Your task to perform on an android device: Go to display settings Image 0: 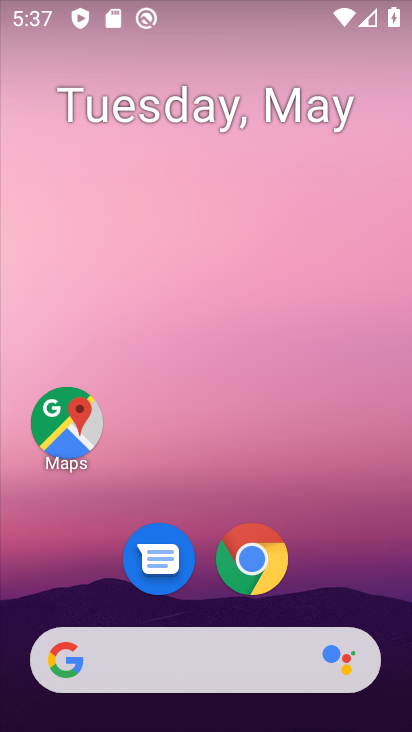
Step 0: drag from (200, 598) to (264, 231)
Your task to perform on an android device: Go to display settings Image 1: 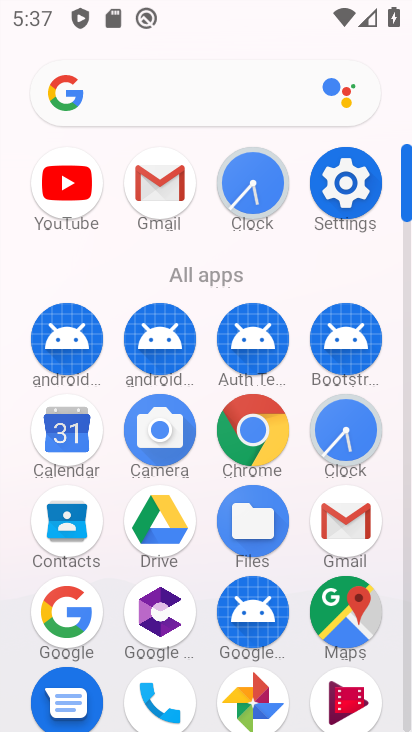
Step 1: click (346, 186)
Your task to perform on an android device: Go to display settings Image 2: 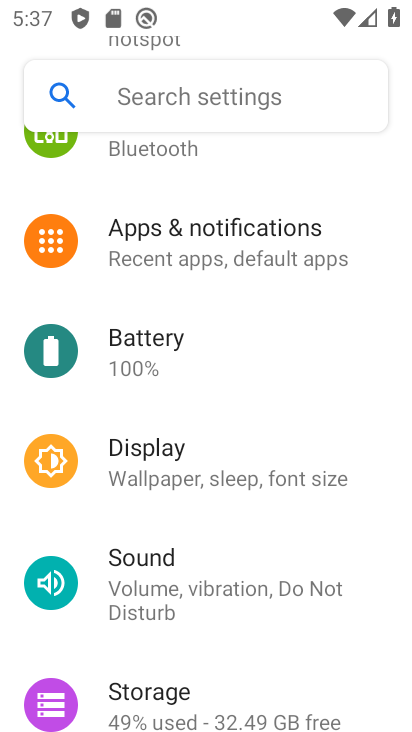
Step 2: click (181, 456)
Your task to perform on an android device: Go to display settings Image 3: 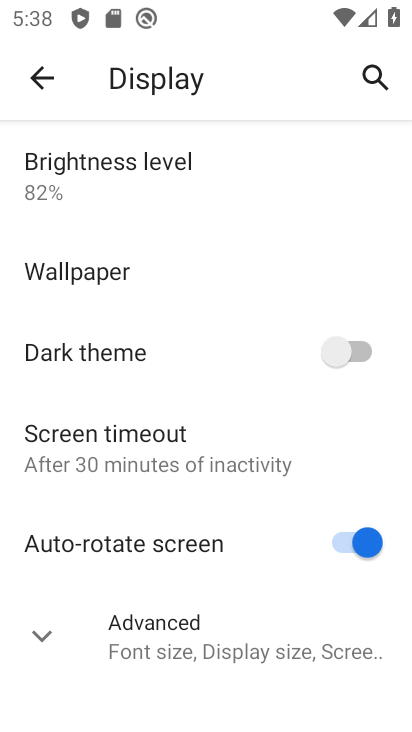
Step 3: task complete